Your task to perform on an android device: set the timer Image 0: 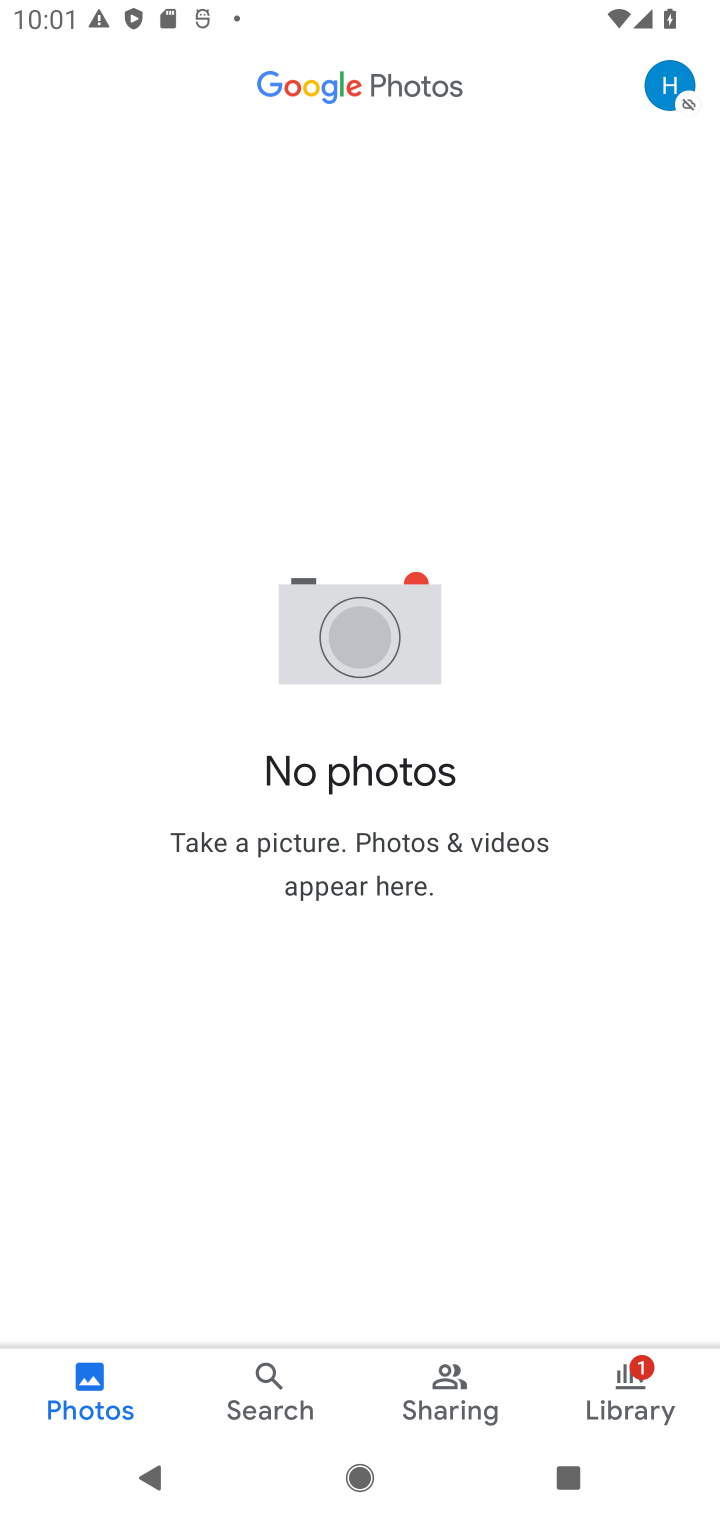
Step 0: drag from (370, 1160) to (408, 522)
Your task to perform on an android device: set the timer Image 1: 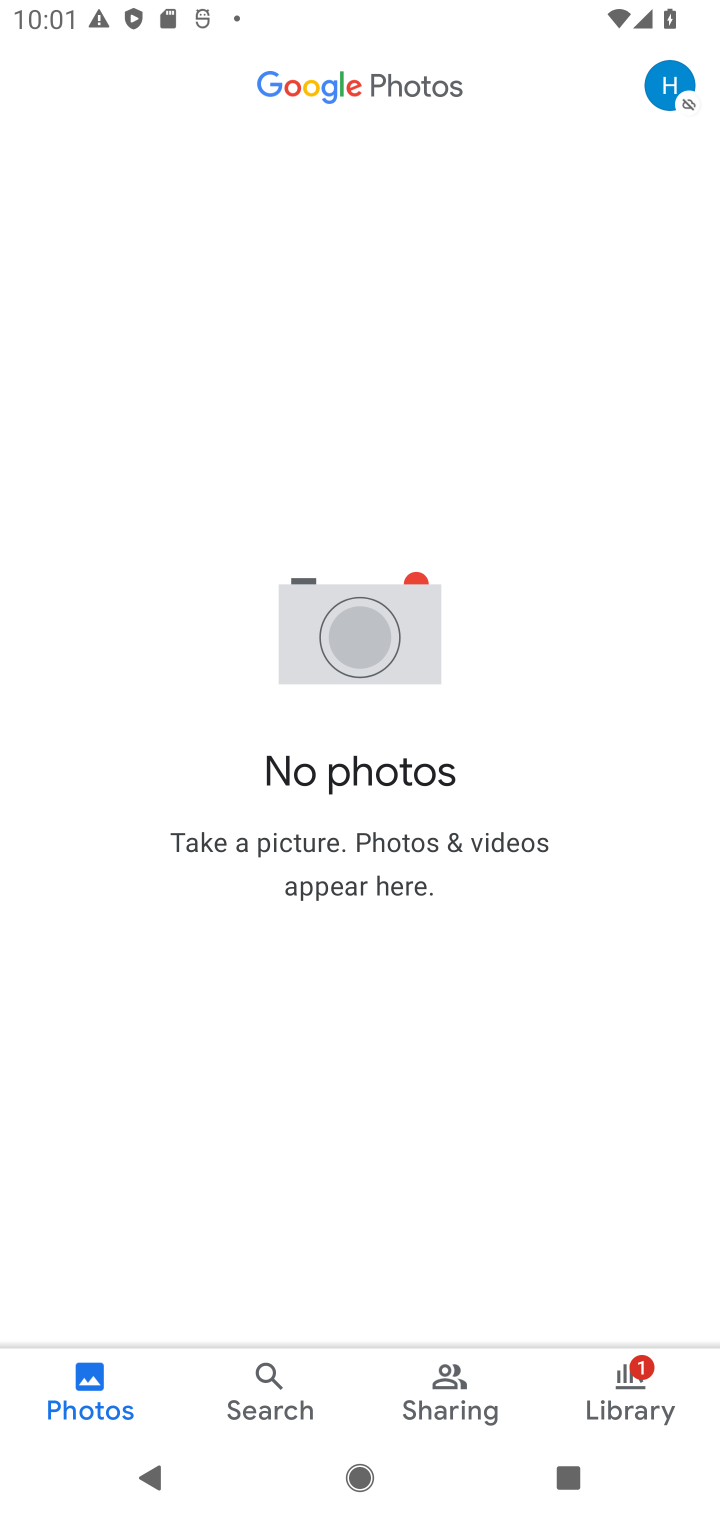
Step 1: press home button
Your task to perform on an android device: set the timer Image 2: 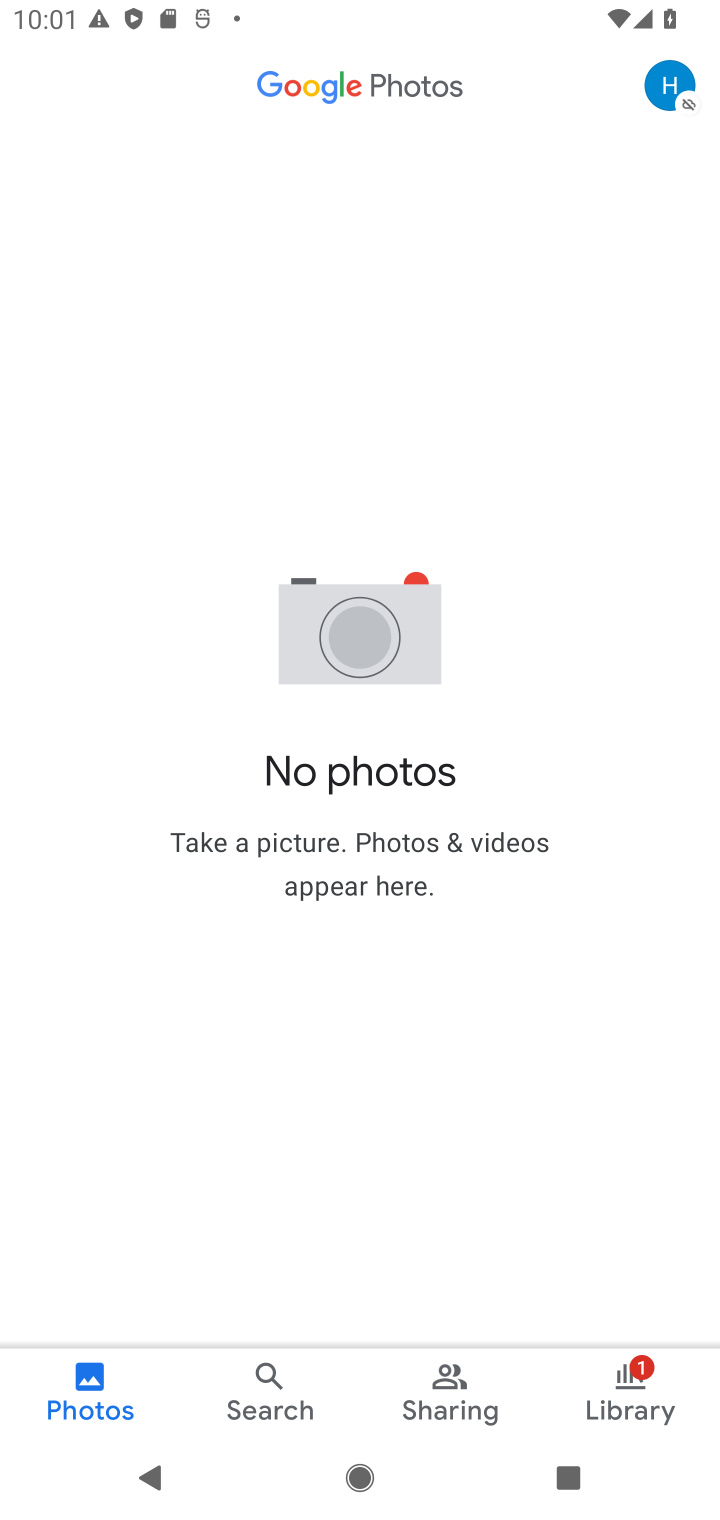
Step 2: drag from (347, 1267) to (494, 192)
Your task to perform on an android device: set the timer Image 3: 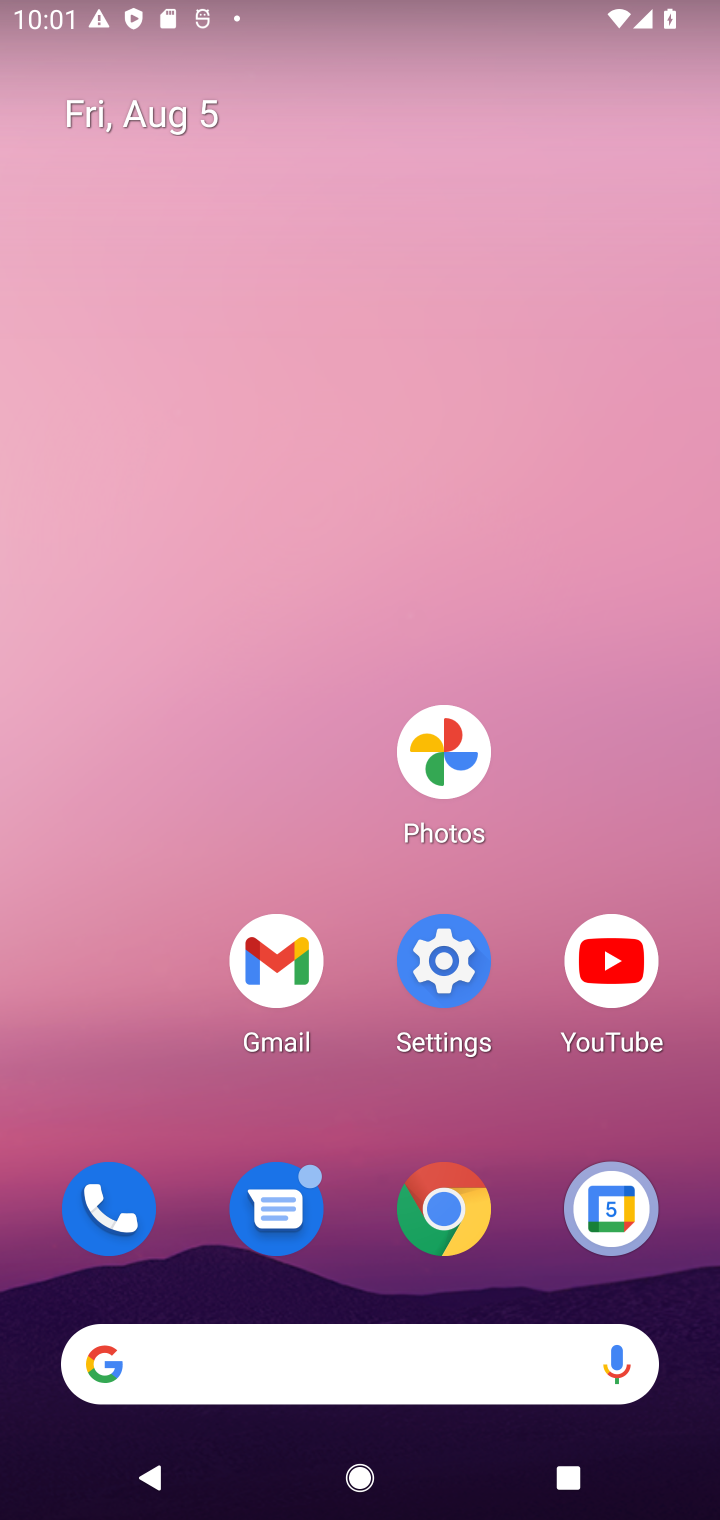
Step 3: drag from (359, 1242) to (577, 169)
Your task to perform on an android device: set the timer Image 4: 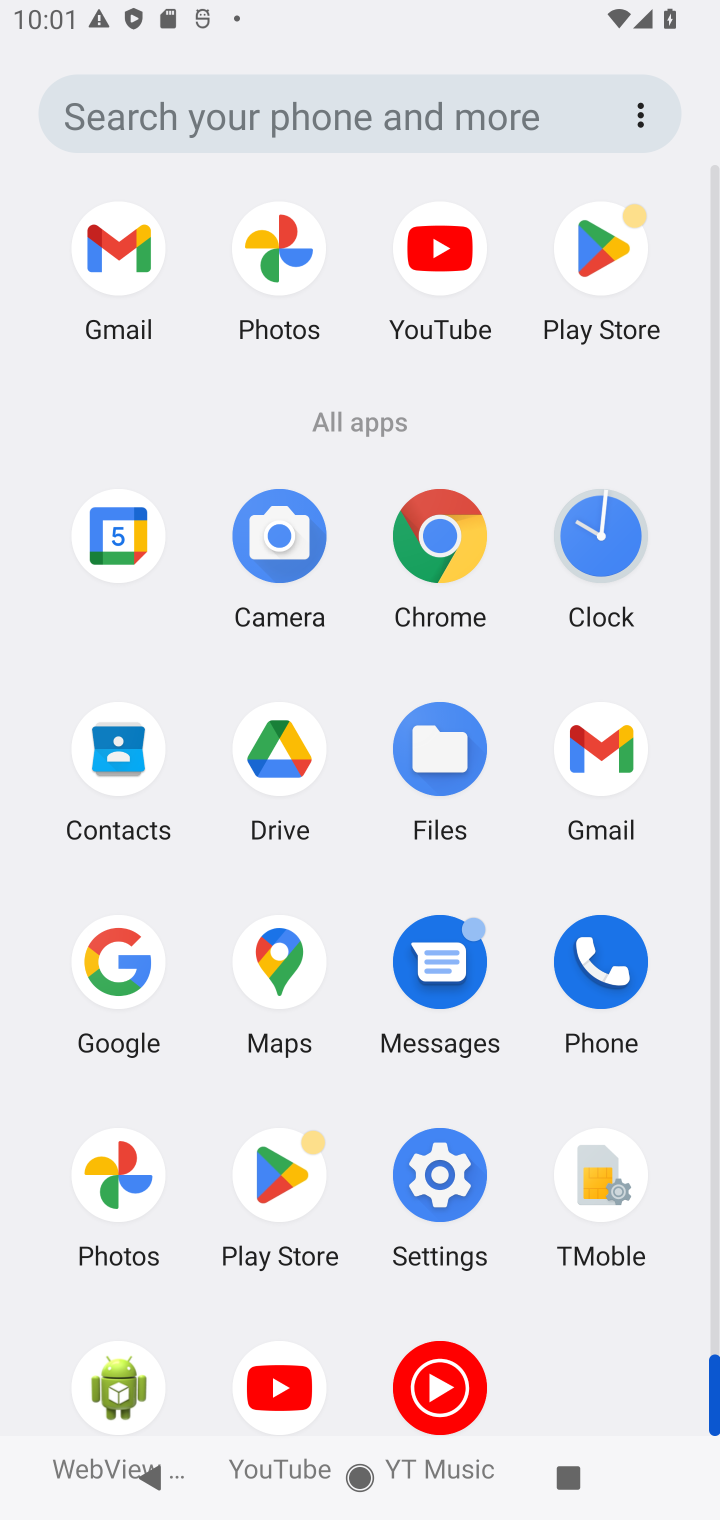
Step 4: click (603, 540)
Your task to perform on an android device: set the timer Image 5: 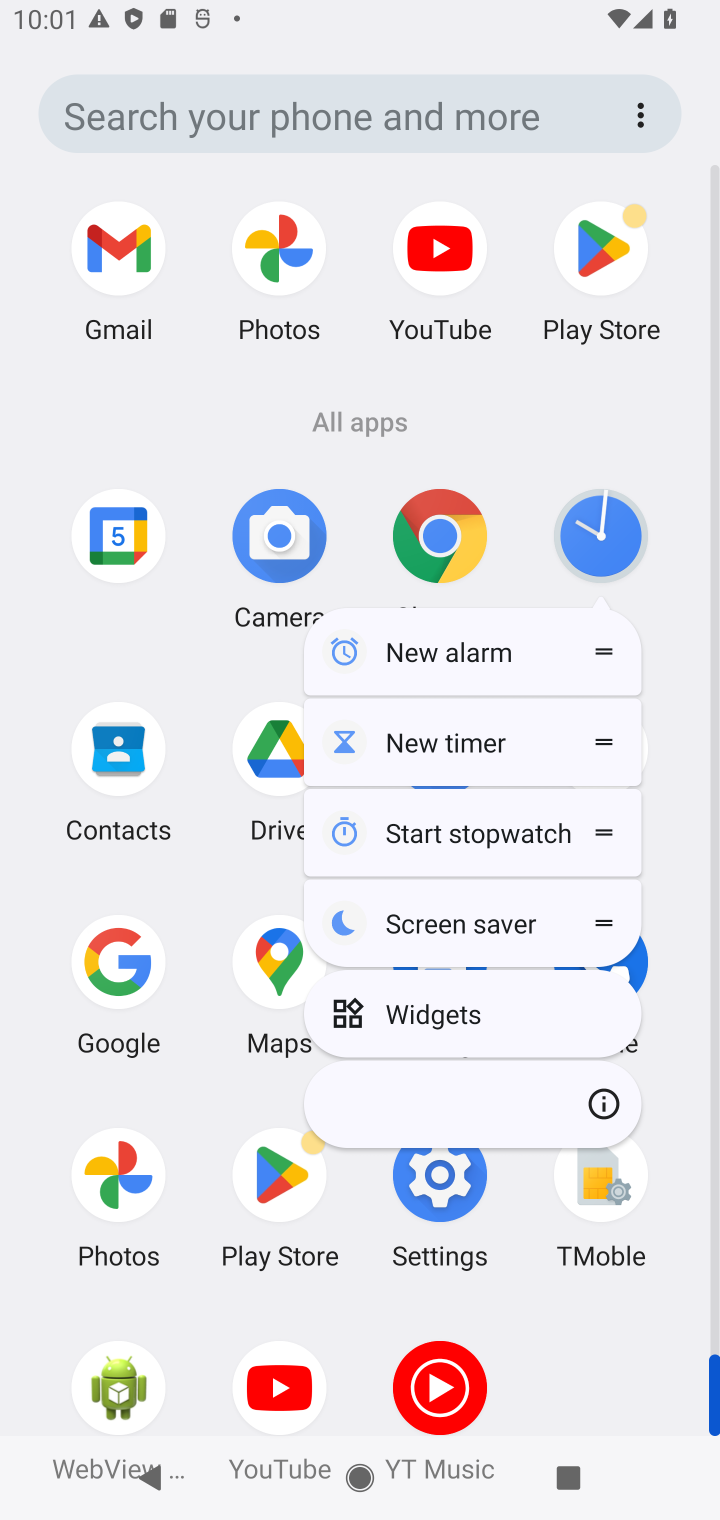
Step 5: click (604, 1098)
Your task to perform on an android device: set the timer Image 6: 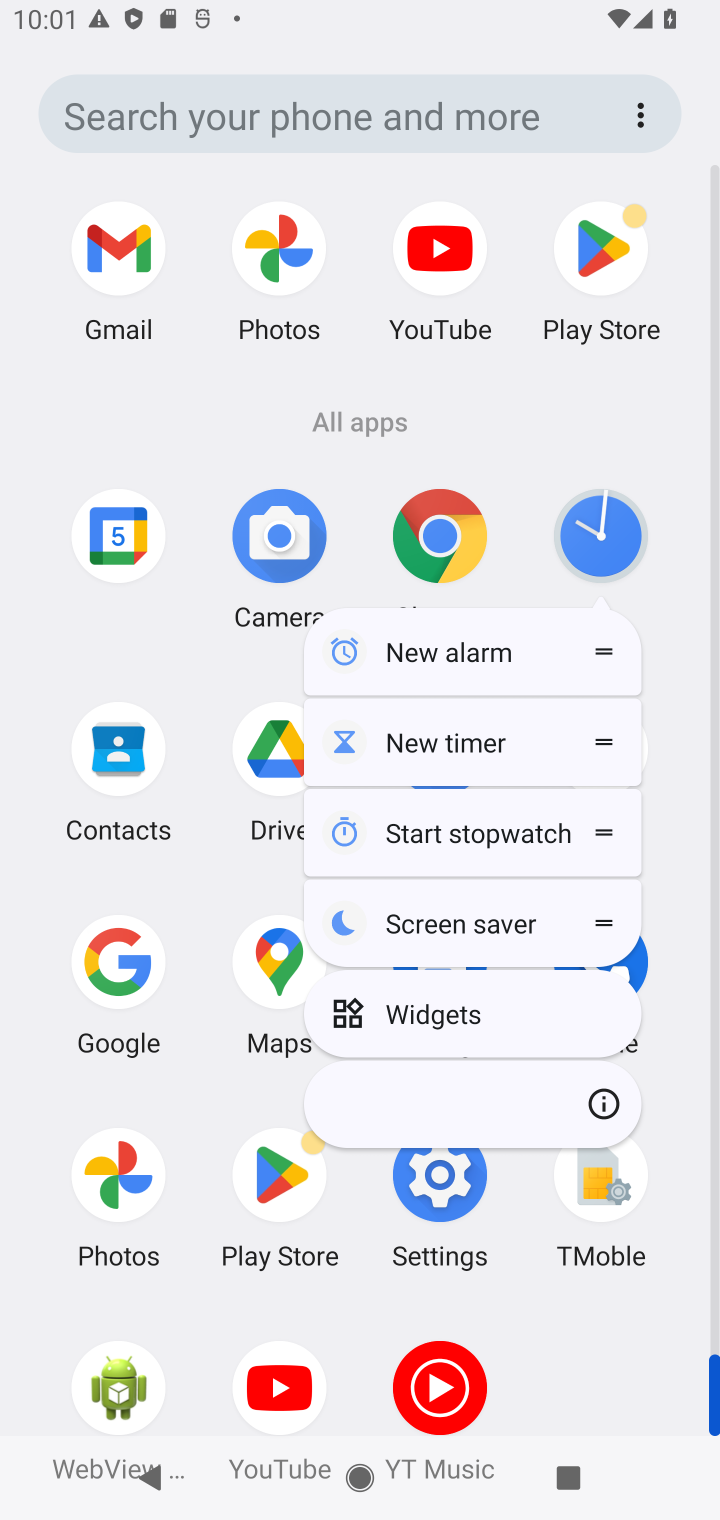
Step 6: click (603, 1104)
Your task to perform on an android device: set the timer Image 7: 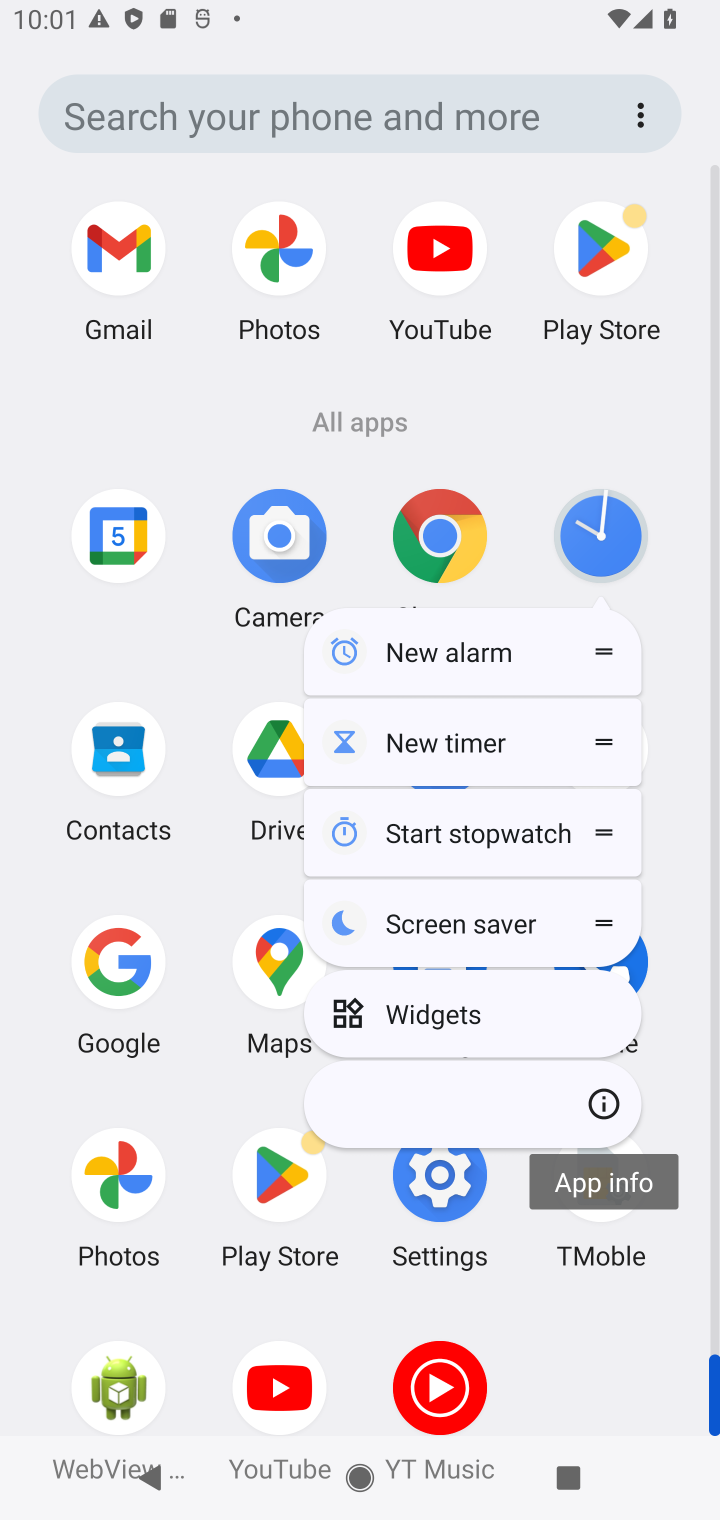
Step 7: click (607, 1104)
Your task to perform on an android device: set the timer Image 8: 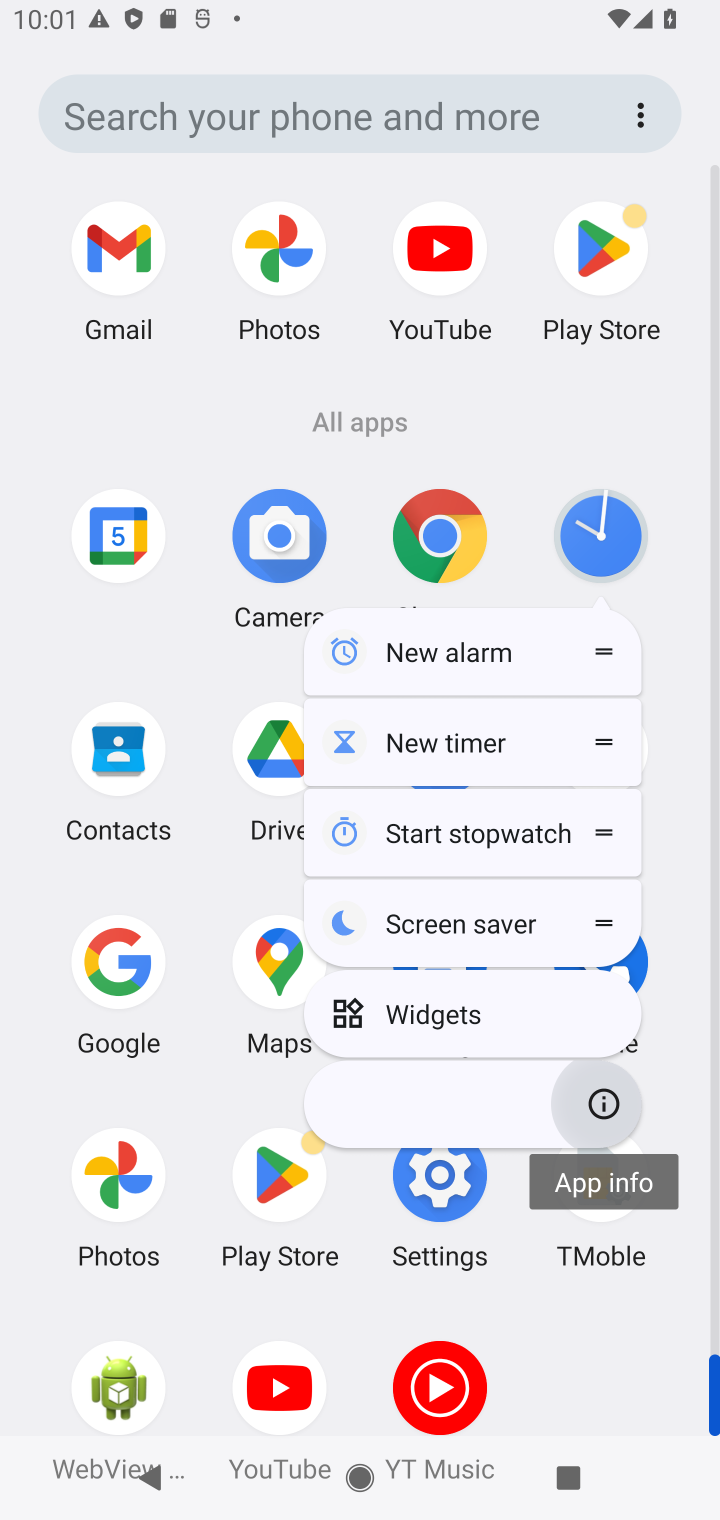
Step 8: click (607, 1104)
Your task to perform on an android device: set the timer Image 9: 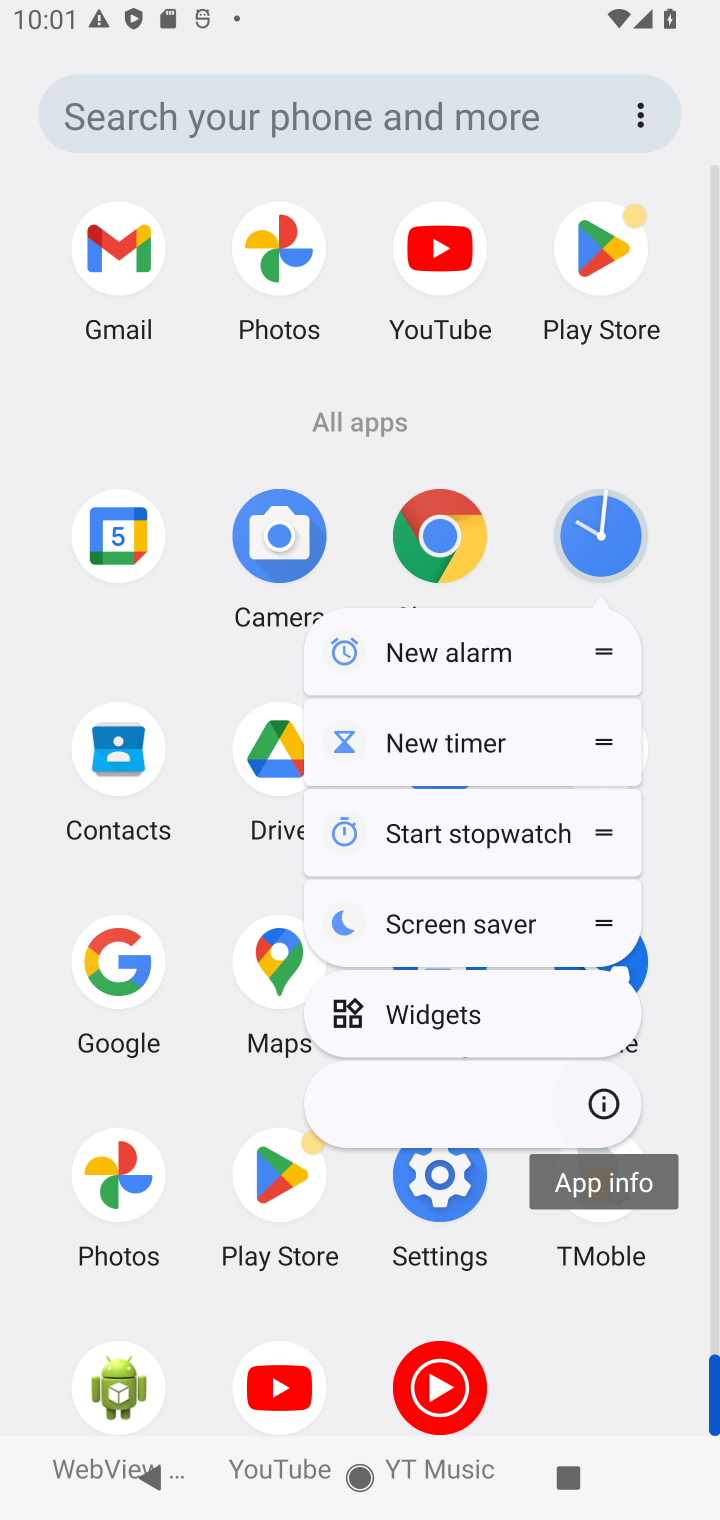
Step 9: click (601, 1100)
Your task to perform on an android device: set the timer Image 10: 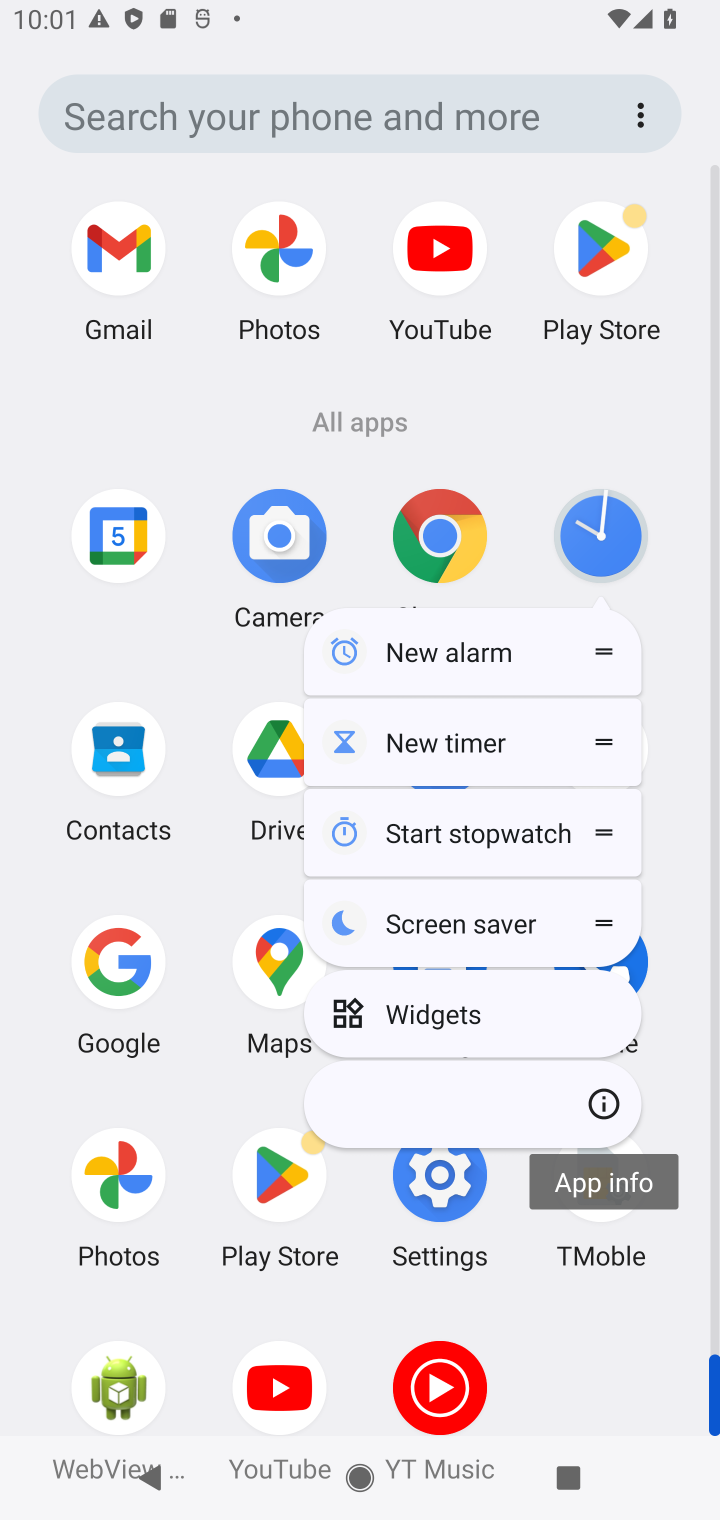
Step 10: click (607, 1087)
Your task to perform on an android device: set the timer Image 11: 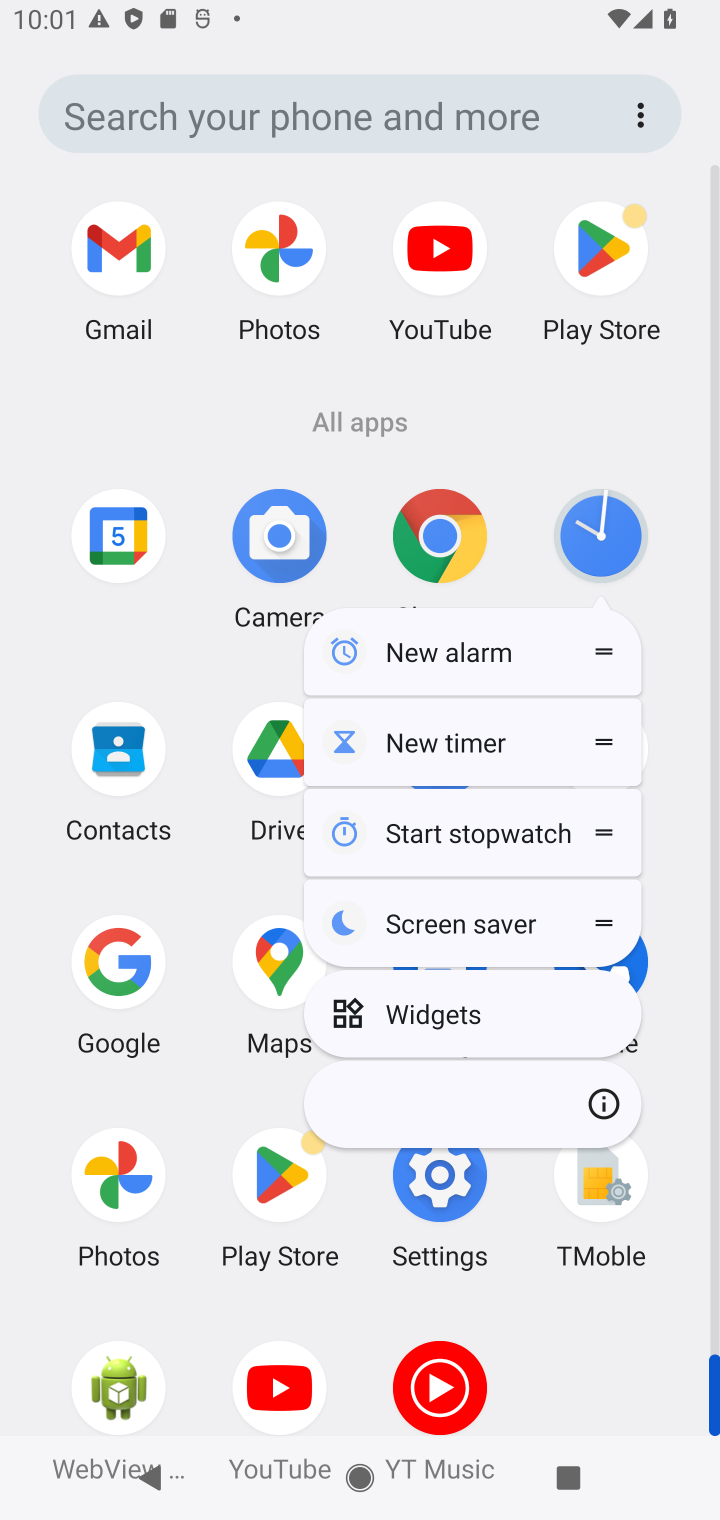
Step 11: click (599, 1079)
Your task to perform on an android device: set the timer Image 12: 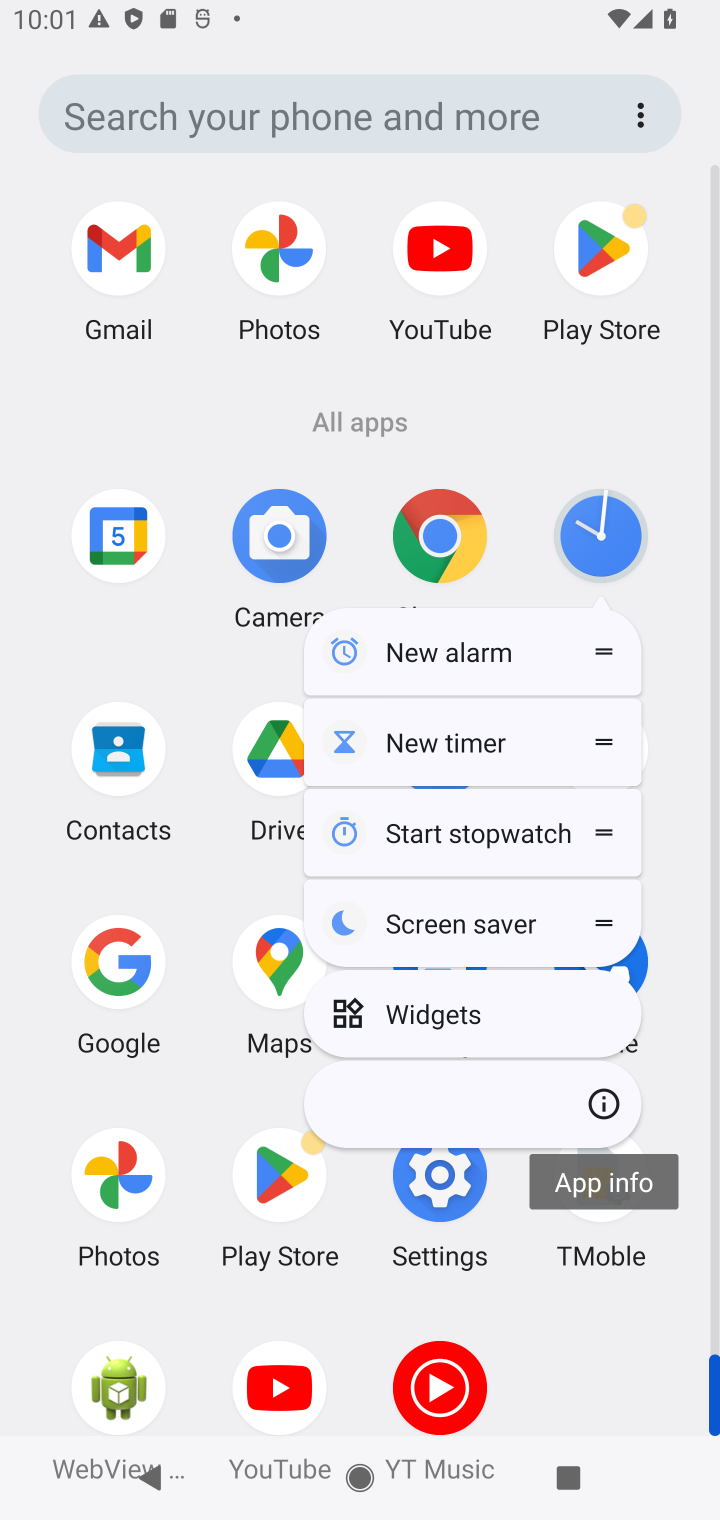
Step 12: click (580, 569)
Your task to perform on an android device: set the timer Image 13: 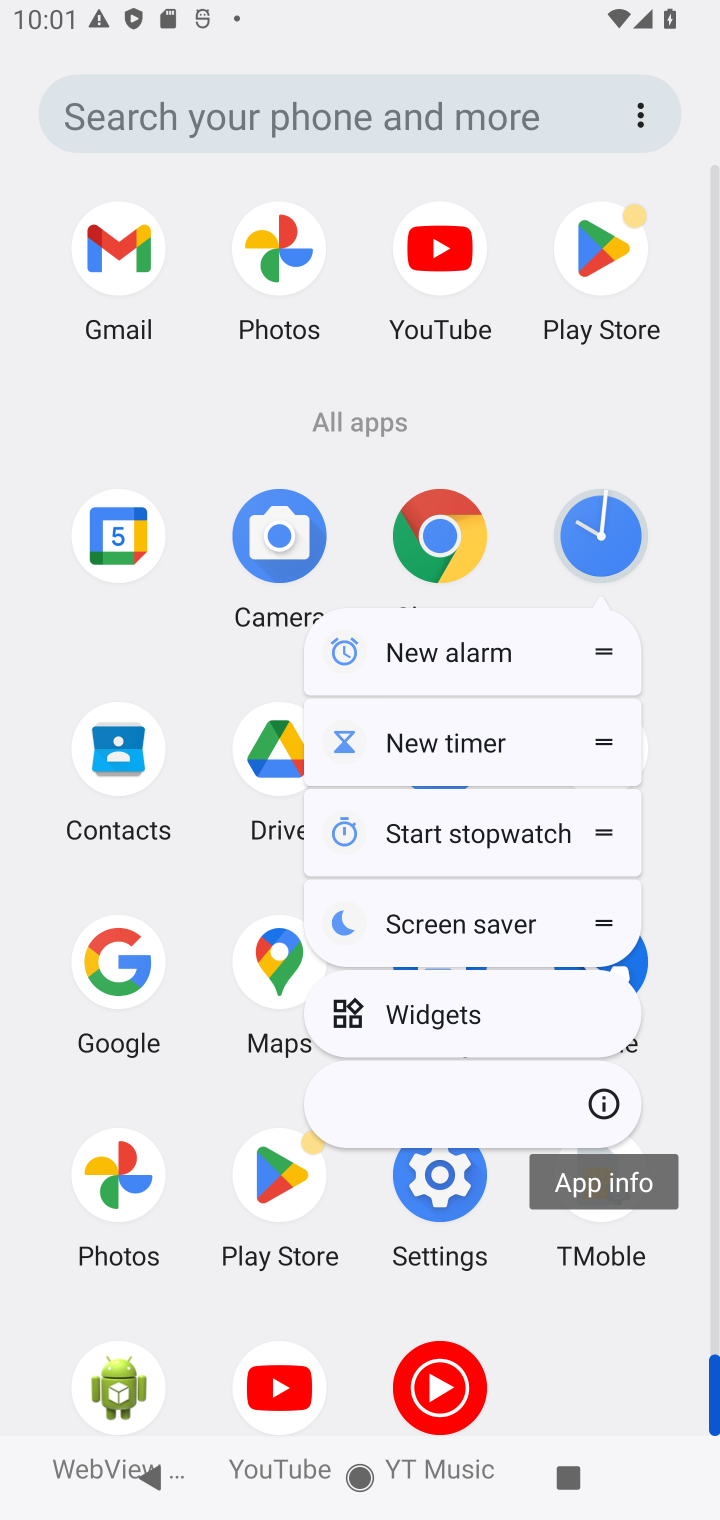
Step 13: click (607, 545)
Your task to perform on an android device: set the timer Image 14: 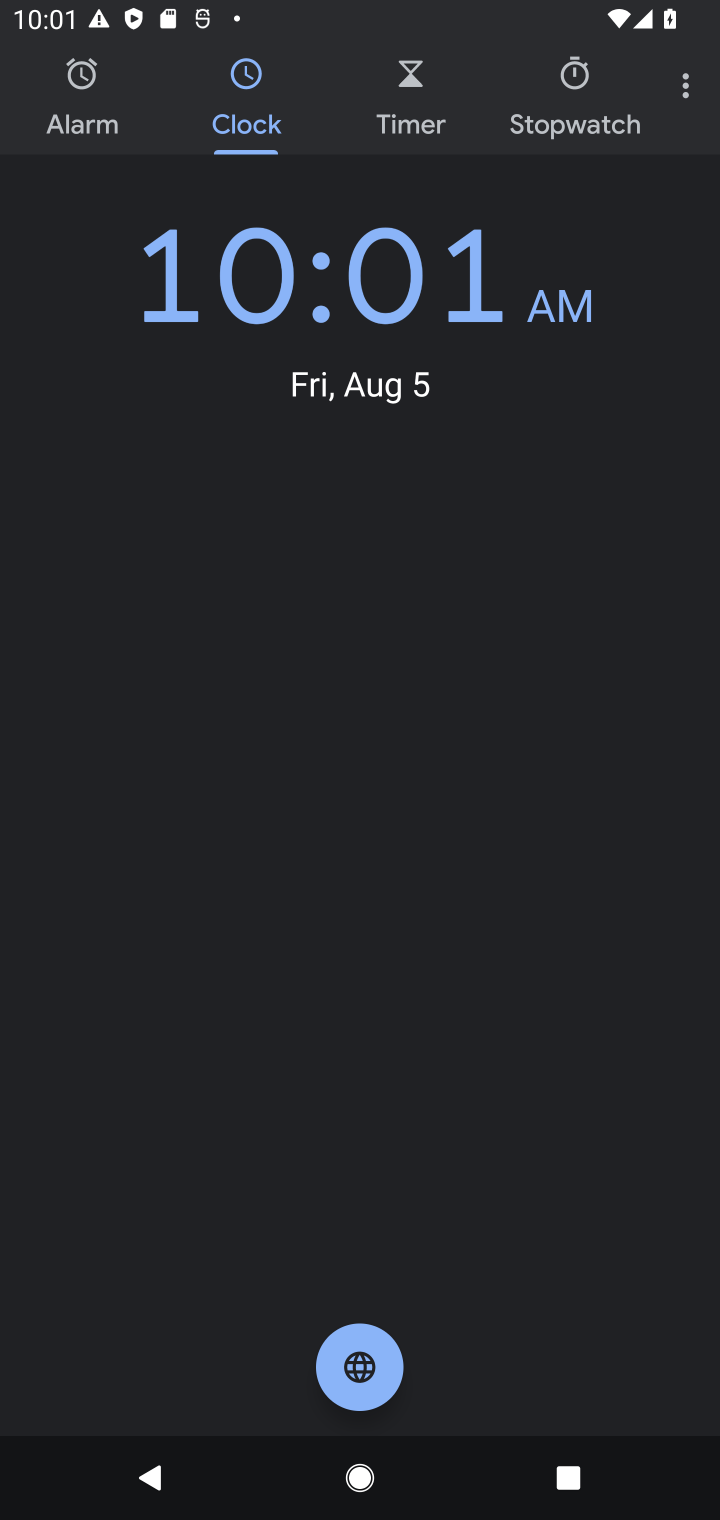
Step 14: click (391, 116)
Your task to perform on an android device: set the timer Image 15: 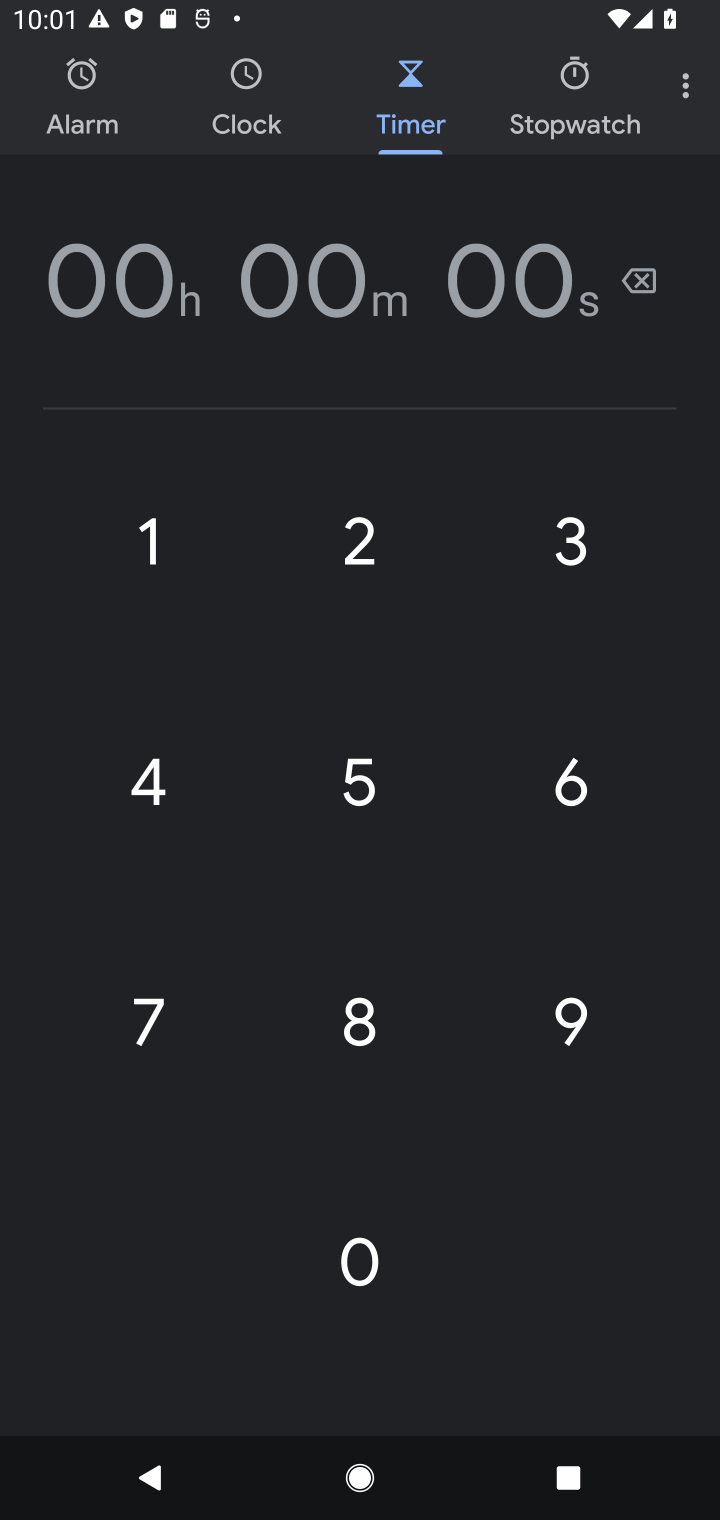
Step 15: click (346, 531)
Your task to perform on an android device: set the timer Image 16: 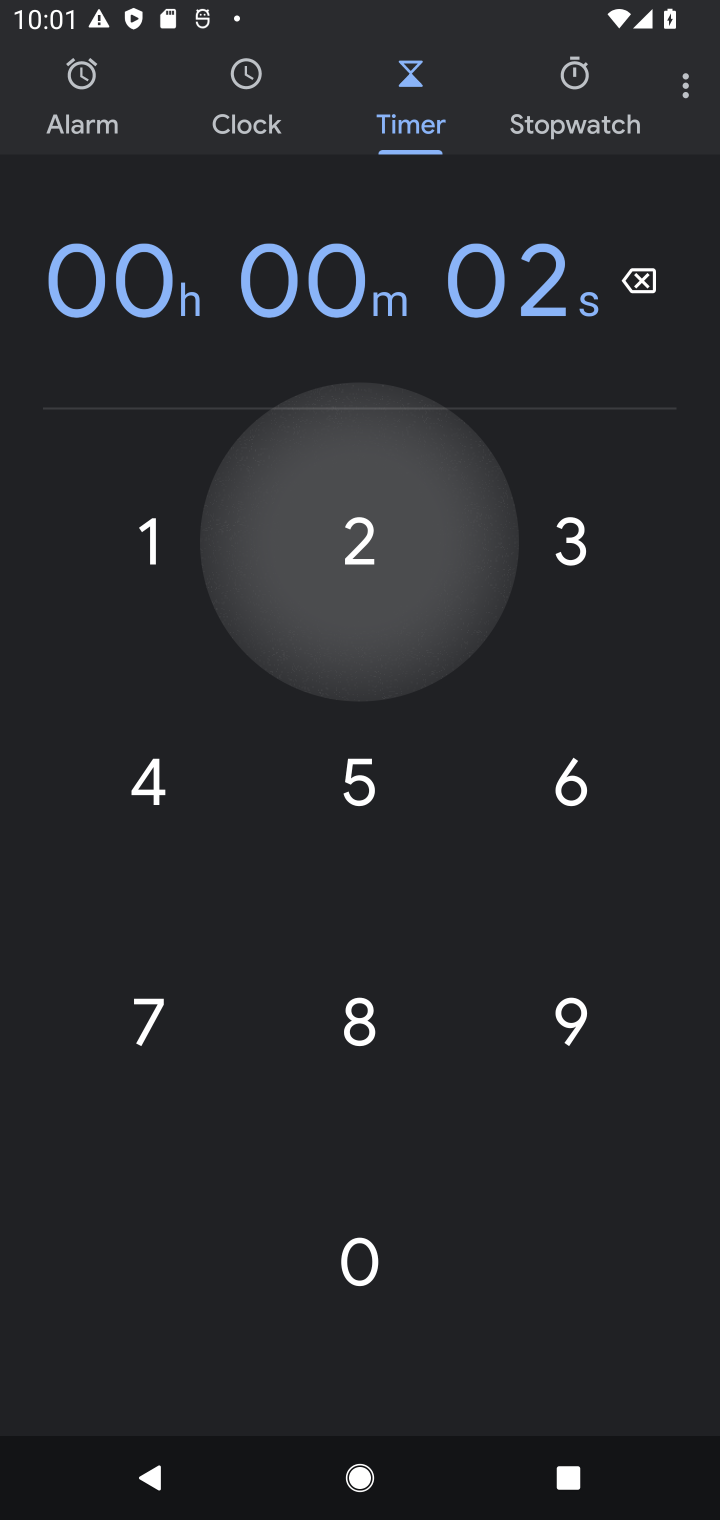
Step 16: click (568, 549)
Your task to perform on an android device: set the timer Image 17: 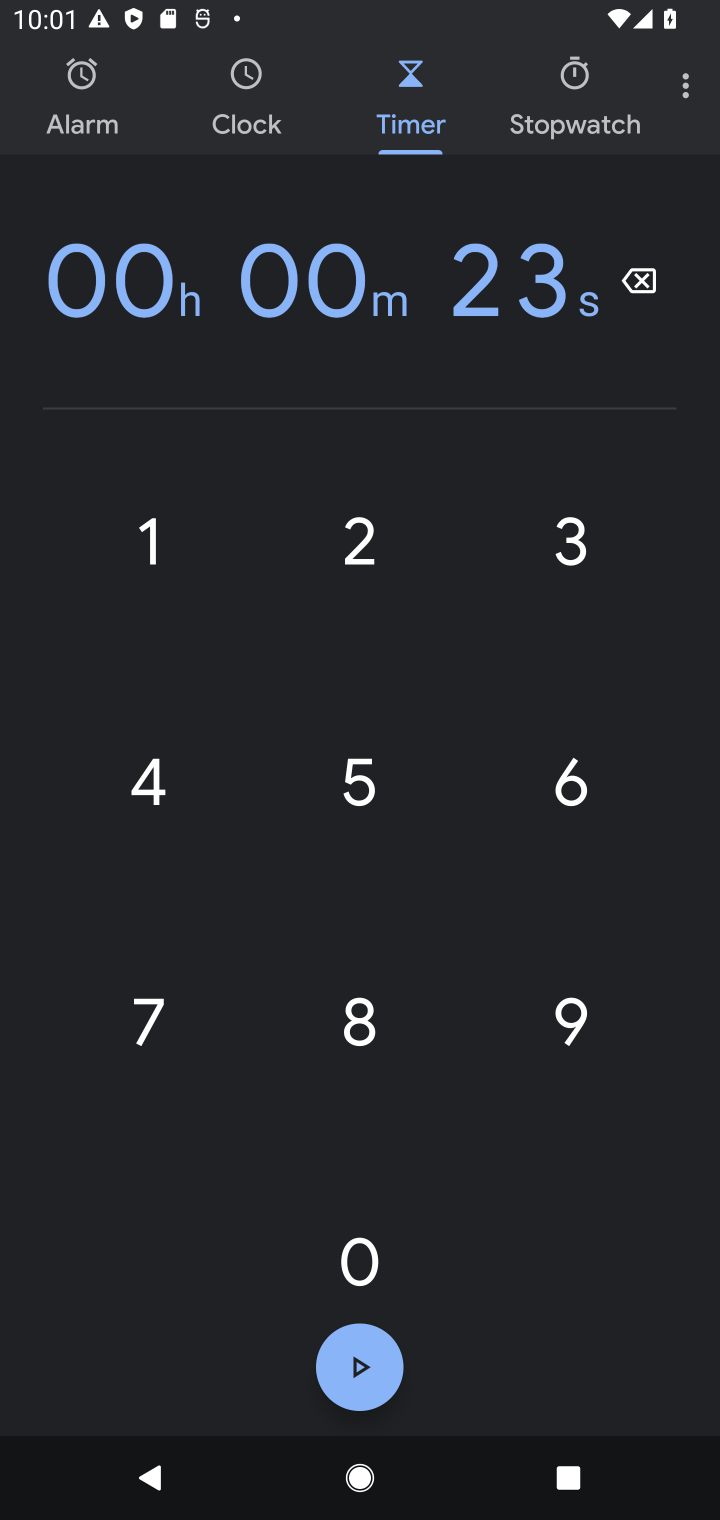
Step 17: click (346, 1365)
Your task to perform on an android device: set the timer Image 18: 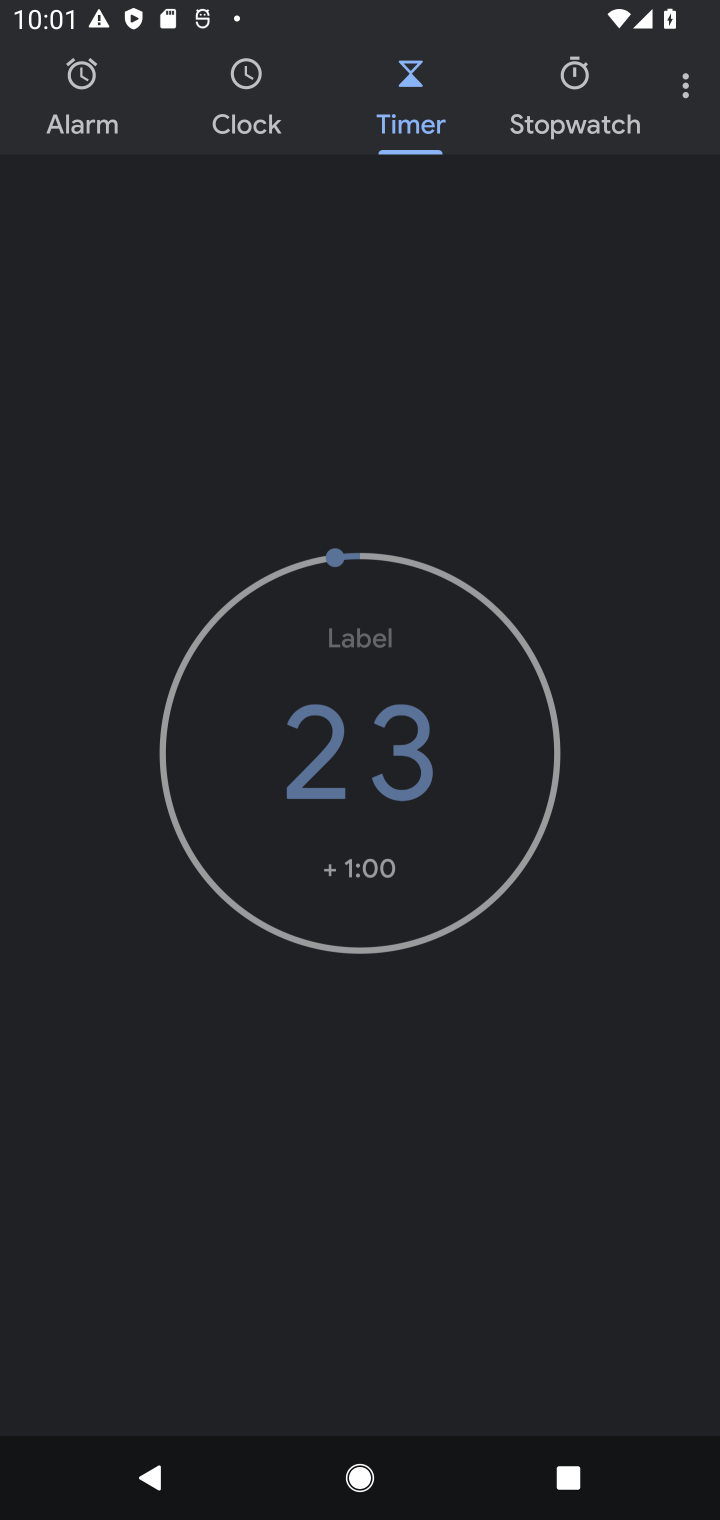
Step 18: task complete